Your task to perform on an android device: View the shopping cart on costco.com. Image 0: 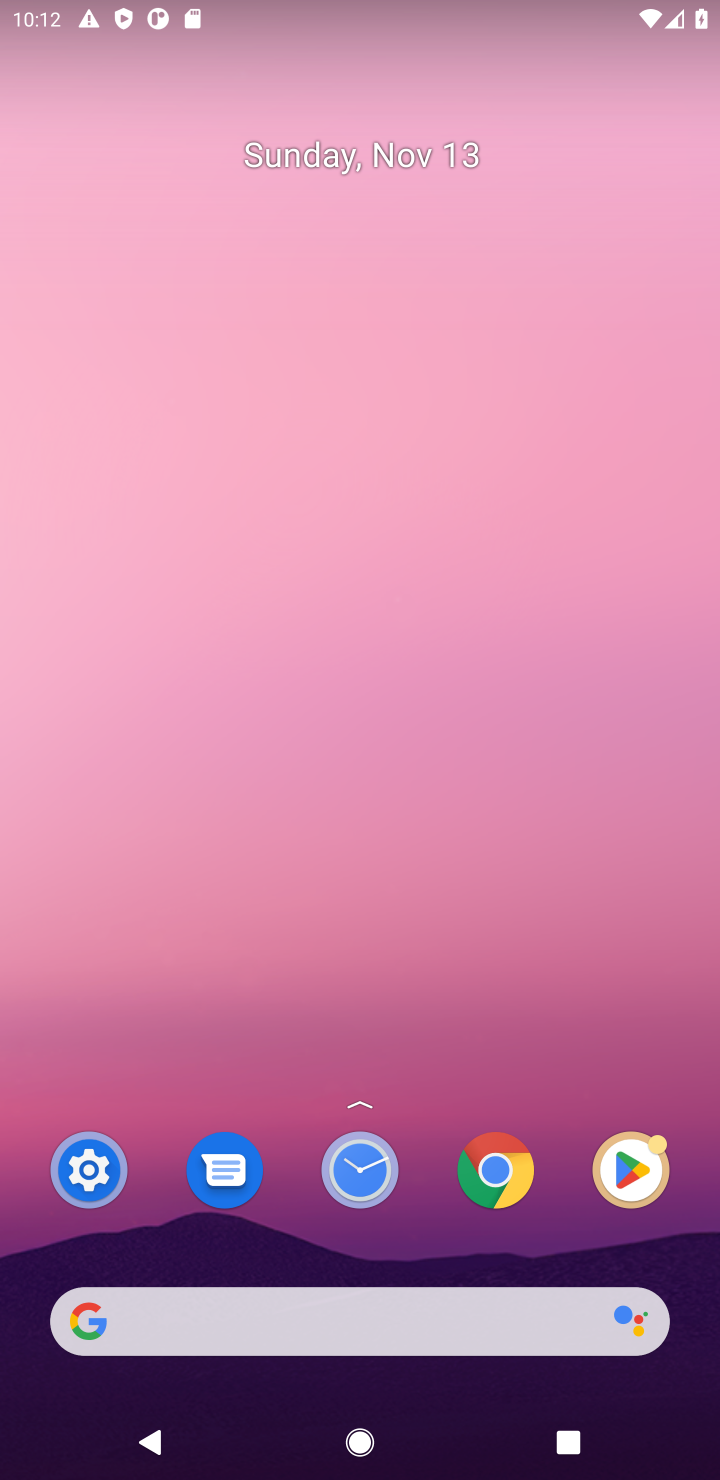
Step 0: click (500, 1318)
Your task to perform on an android device: View the shopping cart on costco.com. Image 1: 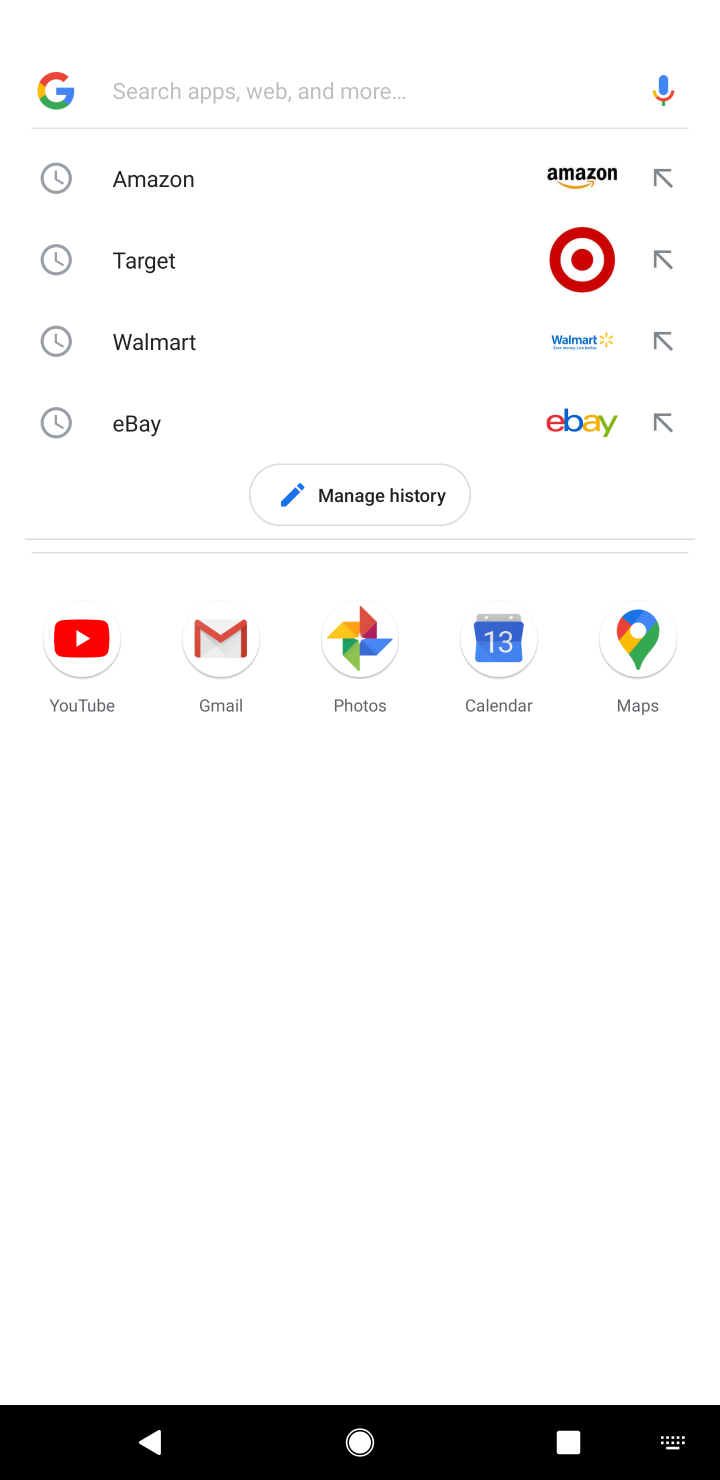
Step 1: type "costco.com"
Your task to perform on an android device: View the shopping cart on costco.com. Image 2: 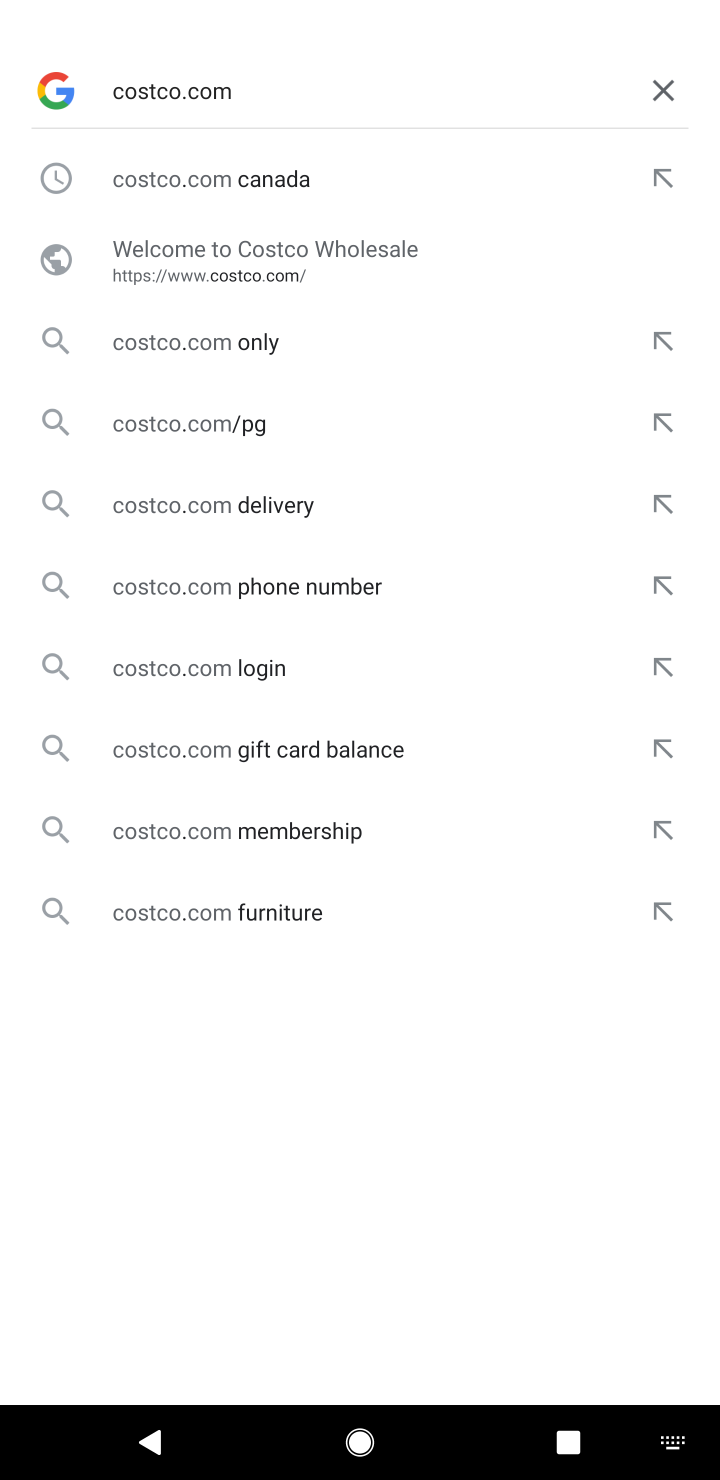
Step 2: click (298, 356)
Your task to perform on an android device: View the shopping cart on costco.com. Image 3: 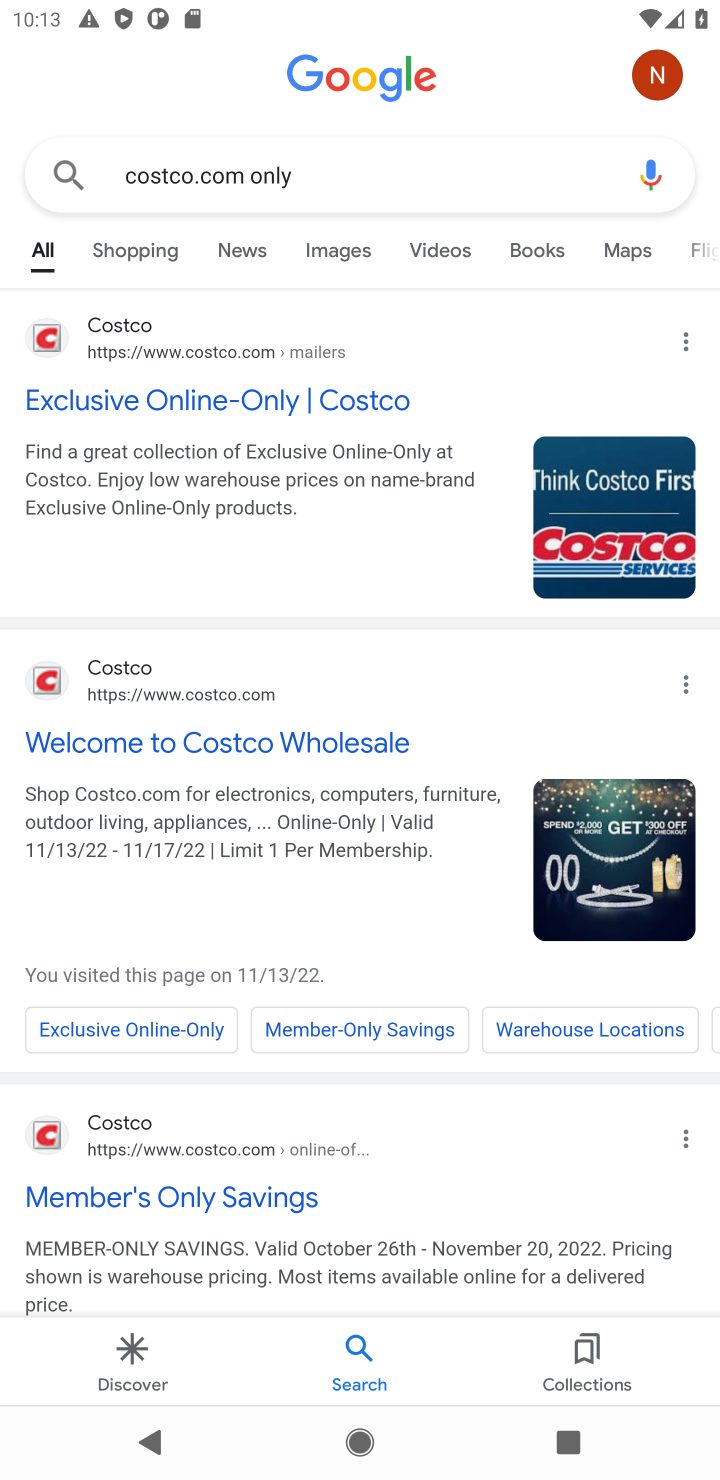
Step 3: click (276, 413)
Your task to perform on an android device: View the shopping cart on costco.com. Image 4: 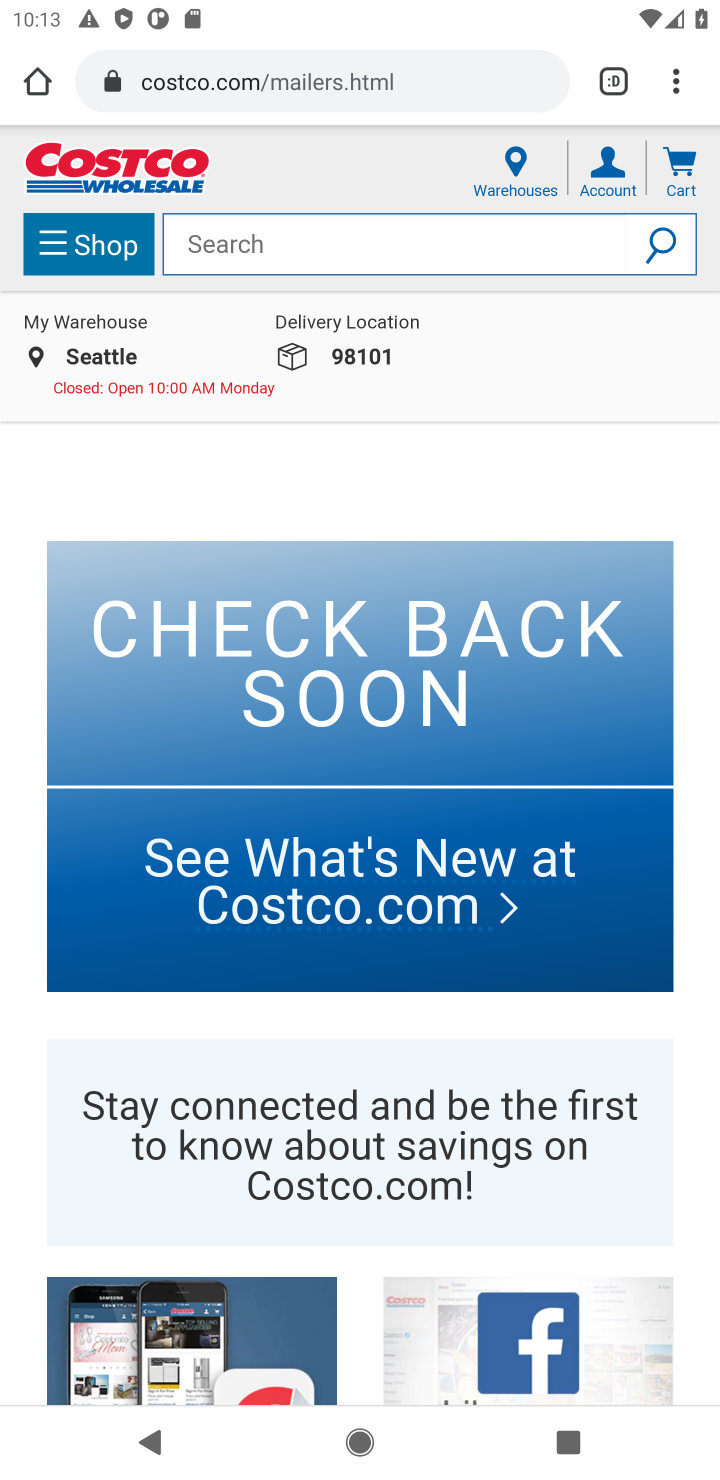
Step 4: task complete